Your task to perform on an android device: turn notification dots off Image 0: 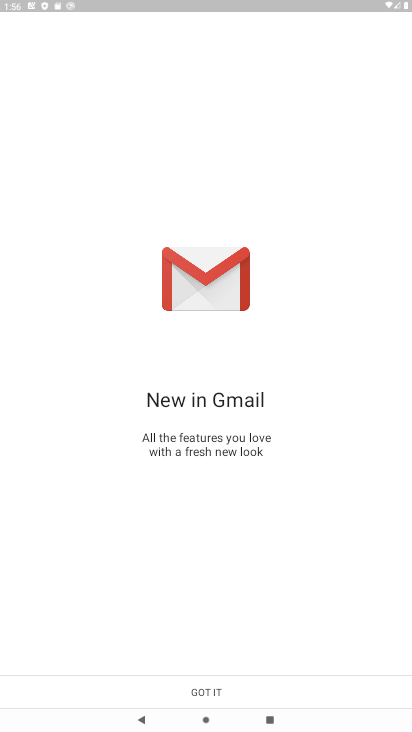
Step 0: press home button
Your task to perform on an android device: turn notification dots off Image 1: 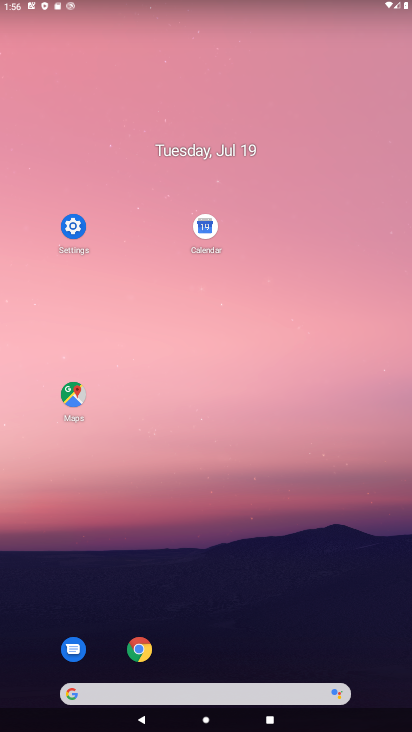
Step 1: click (76, 227)
Your task to perform on an android device: turn notification dots off Image 2: 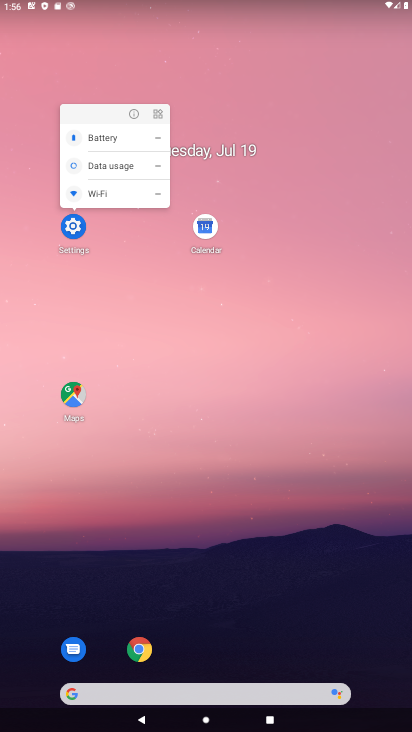
Step 2: click (78, 238)
Your task to perform on an android device: turn notification dots off Image 3: 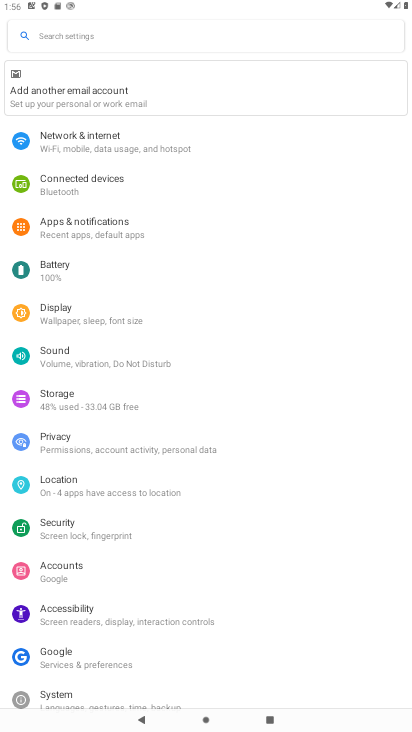
Step 3: click (126, 231)
Your task to perform on an android device: turn notification dots off Image 4: 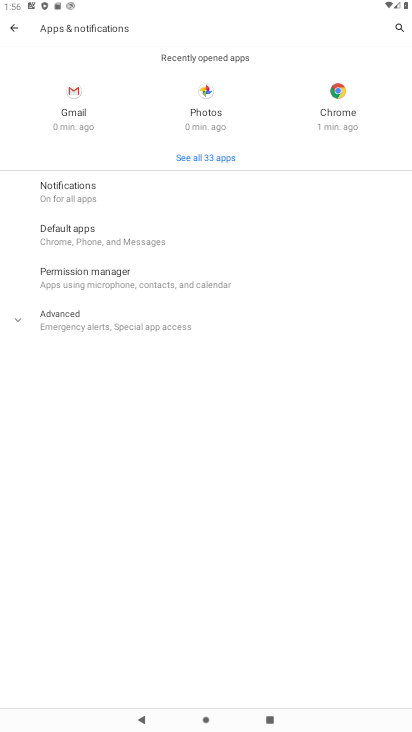
Step 4: click (81, 323)
Your task to perform on an android device: turn notification dots off Image 5: 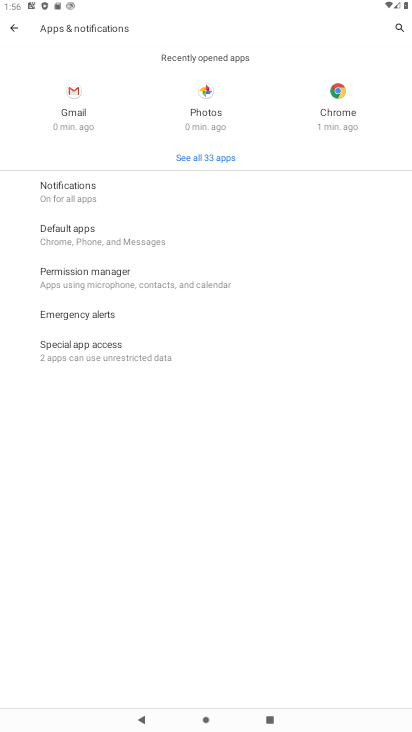
Step 5: click (105, 189)
Your task to perform on an android device: turn notification dots off Image 6: 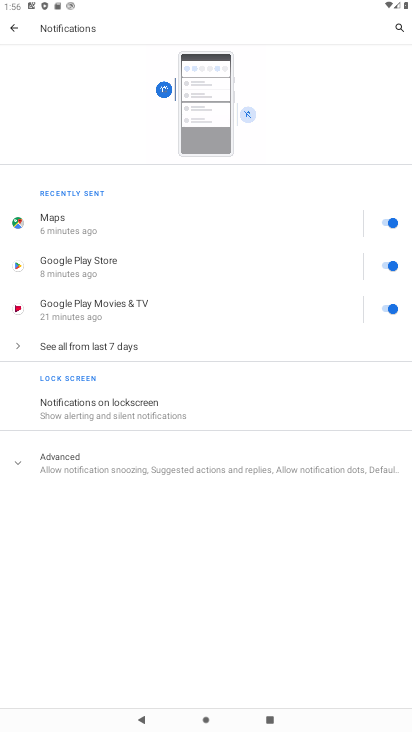
Step 6: click (250, 467)
Your task to perform on an android device: turn notification dots off Image 7: 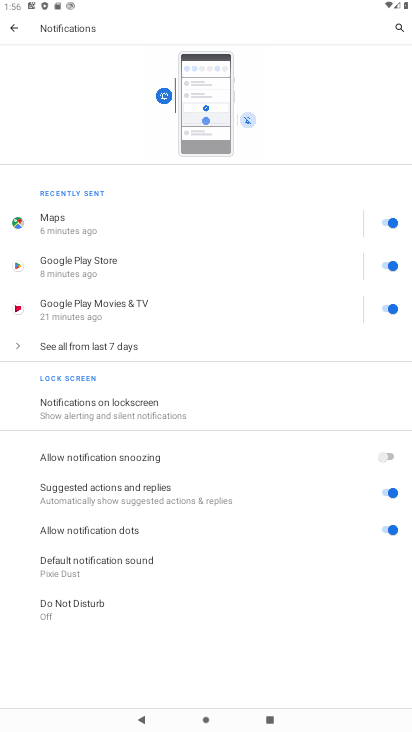
Step 7: click (392, 530)
Your task to perform on an android device: turn notification dots off Image 8: 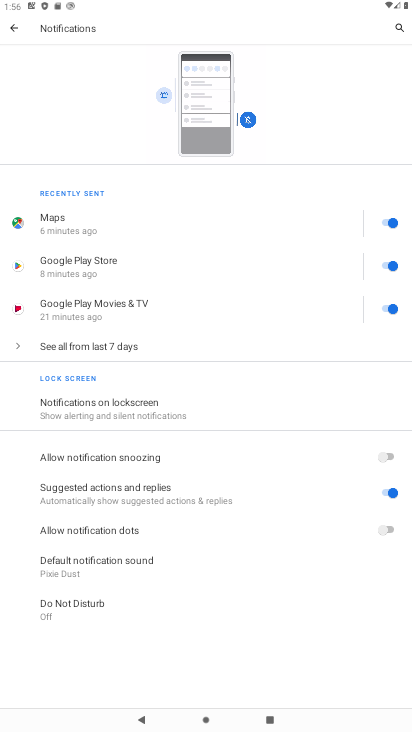
Step 8: task complete